Your task to perform on an android device: Go to Yahoo.com Image 0: 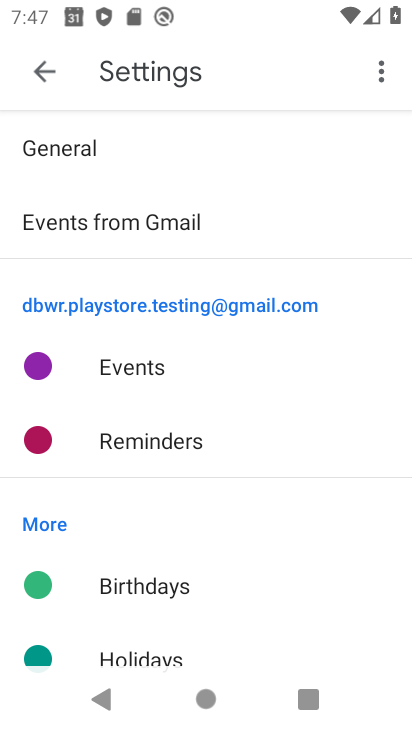
Step 0: press home button
Your task to perform on an android device: Go to Yahoo.com Image 1: 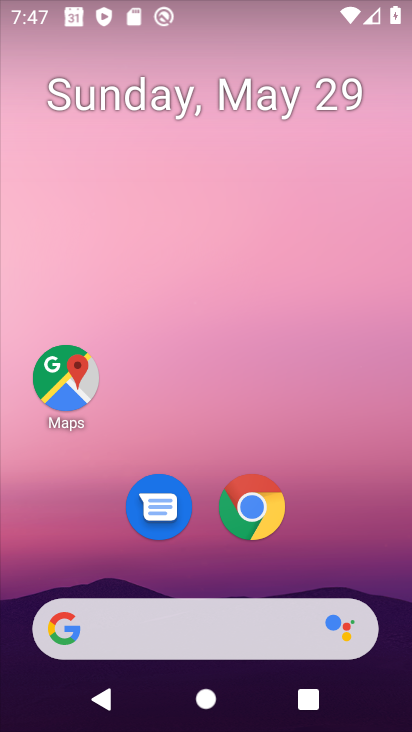
Step 1: click (253, 510)
Your task to perform on an android device: Go to Yahoo.com Image 2: 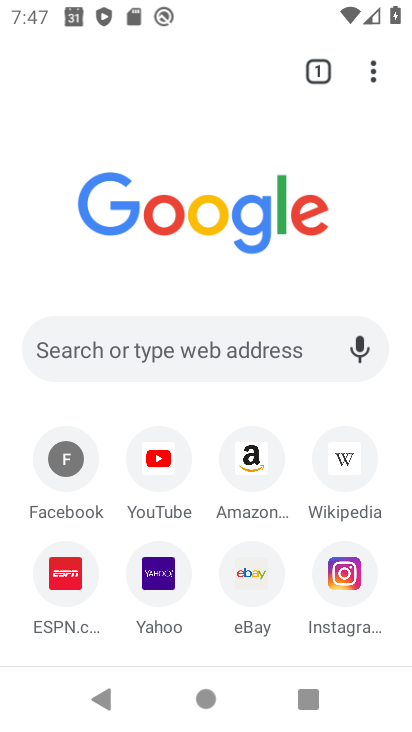
Step 2: click (145, 569)
Your task to perform on an android device: Go to Yahoo.com Image 3: 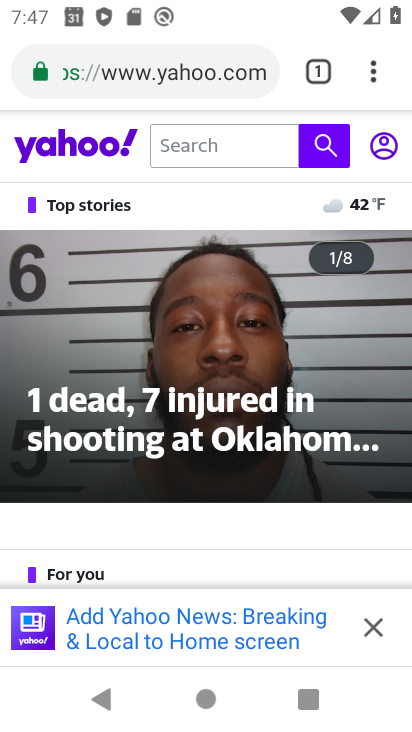
Step 3: task complete